Your task to perform on an android device: open wifi settings Image 0: 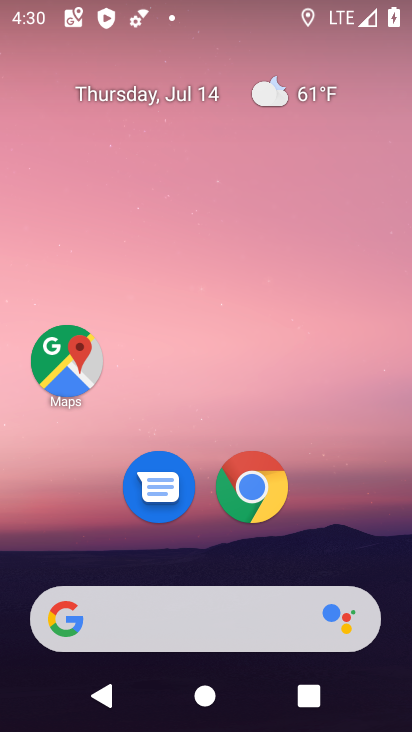
Step 0: drag from (396, 553) to (336, 84)
Your task to perform on an android device: open wifi settings Image 1: 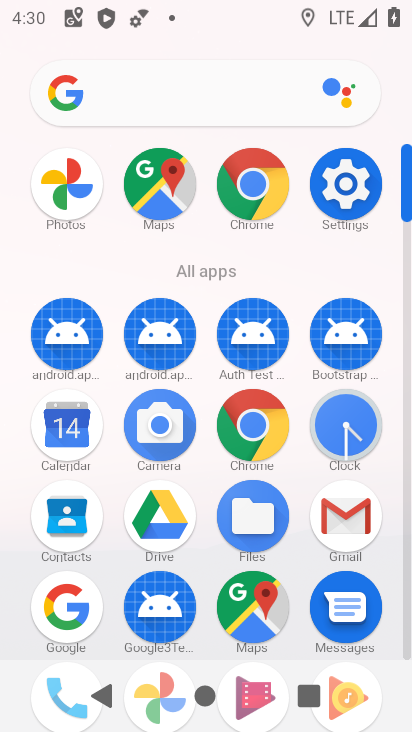
Step 1: click (361, 171)
Your task to perform on an android device: open wifi settings Image 2: 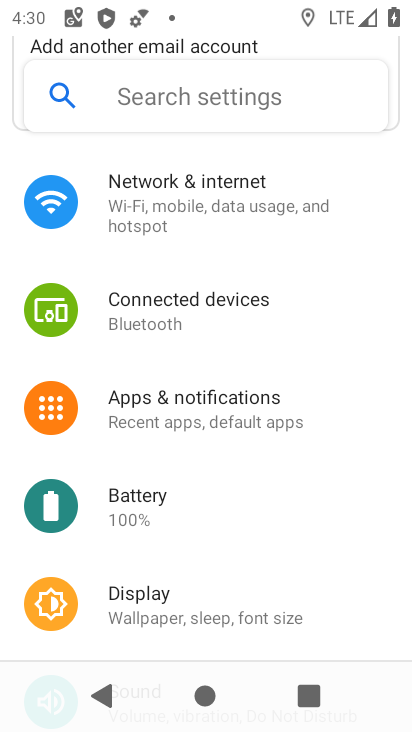
Step 2: click (215, 194)
Your task to perform on an android device: open wifi settings Image 3: 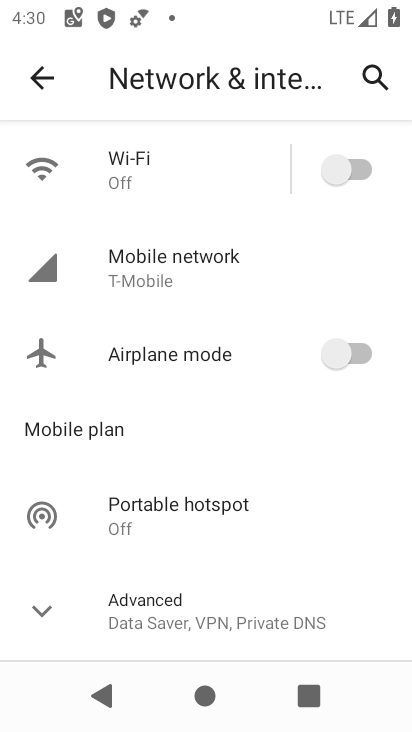
Step 3: click (180, 166)
Your task to perform on an android device: open wifi settings Image 4: 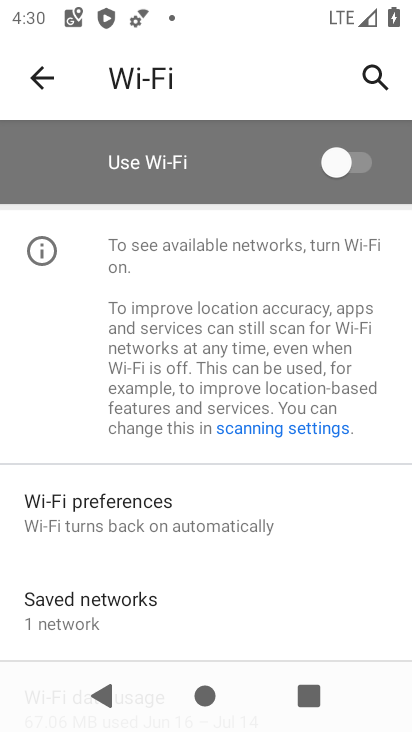
Step 4: task complete